Your task to perform on an android device: Open Google Image 0: 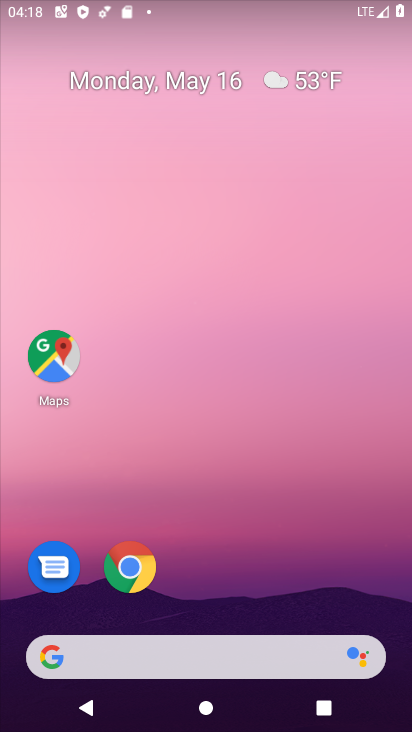
Step 0: drag from (347, 620) to (359, 7)
Your task to perform on an android device: Open Google Image 1: 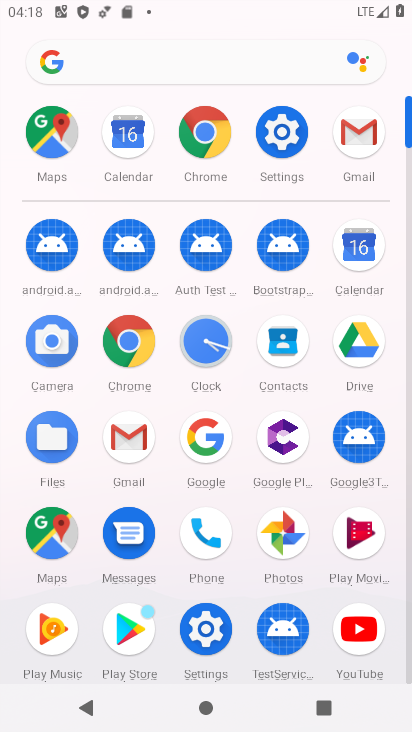
Step 1: click (124, 349)
Your task to perform on an android device: Open Google Image 2: 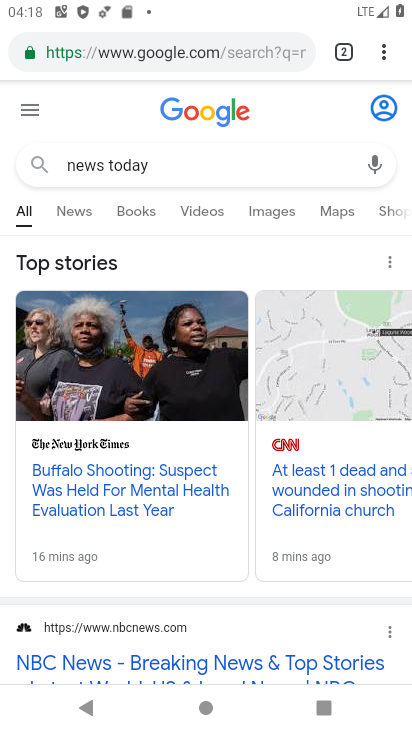
Step 2: click (216, 45)
Your task to perform on an android device: Open Google Image 3: 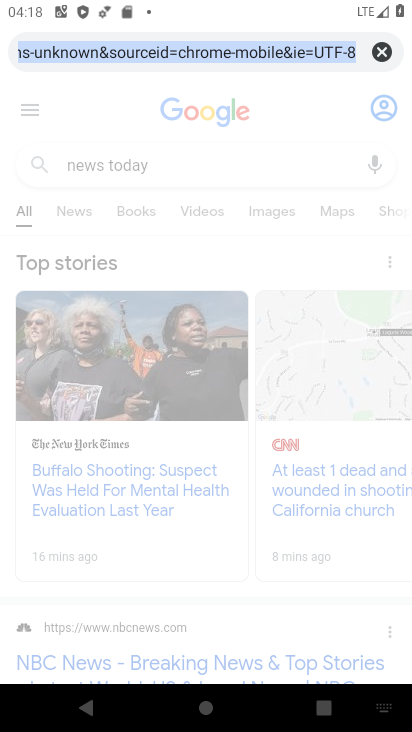
Step 3: click (382, 49)
Your task to perform on an android device: Open Google Image 4: 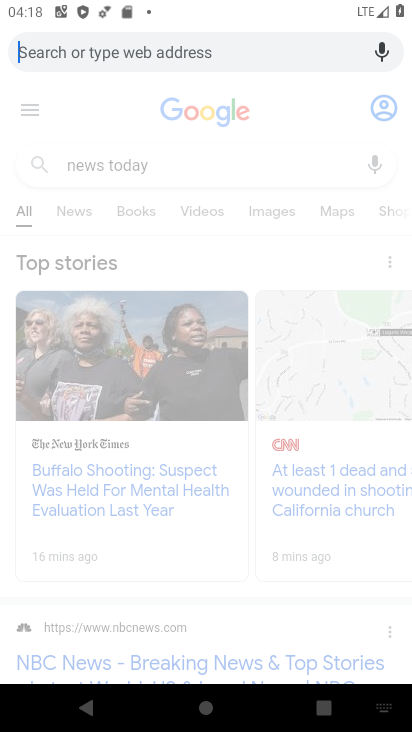
Step 4: task complete